Your task to perform on an android device: Go to location settings Image 0: 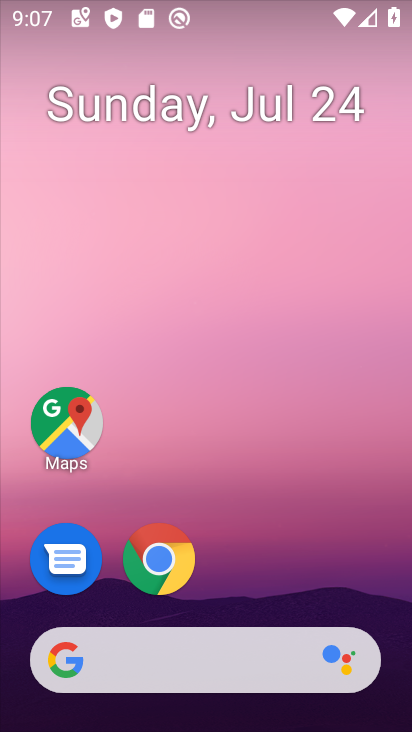
Step 0: drag from (285, 579) to (349, 58)
Your task to perform on an android device: Go to location settings Image 1: 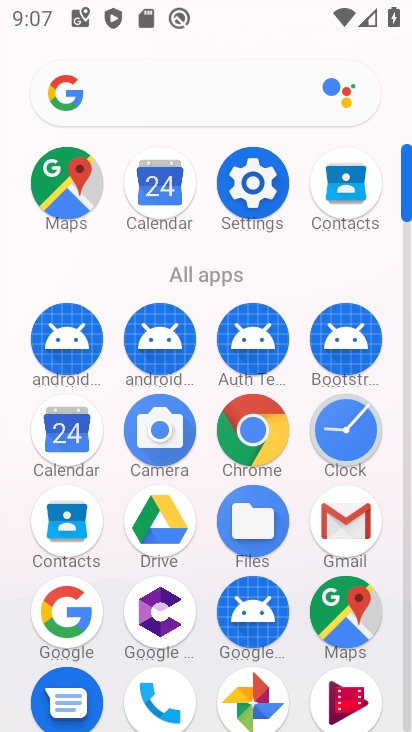
Step 1: click (252, 171)
Your task to perform on an android device: Go to location settings Image 2: 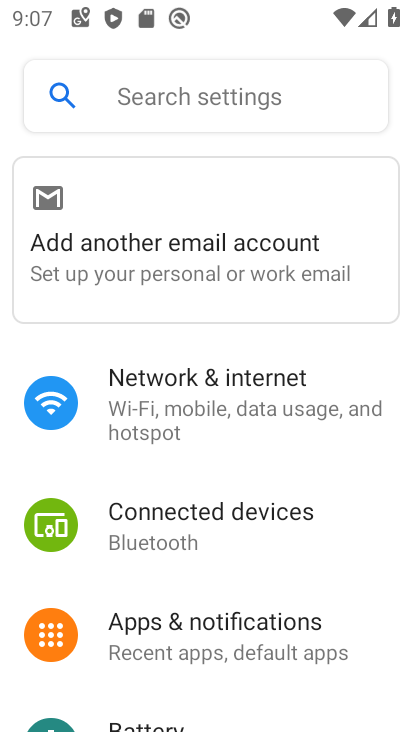
Step 2: drag from (169, 652) to (274, 30)
Your task to perform on an android device: Go to location settings Image 3: 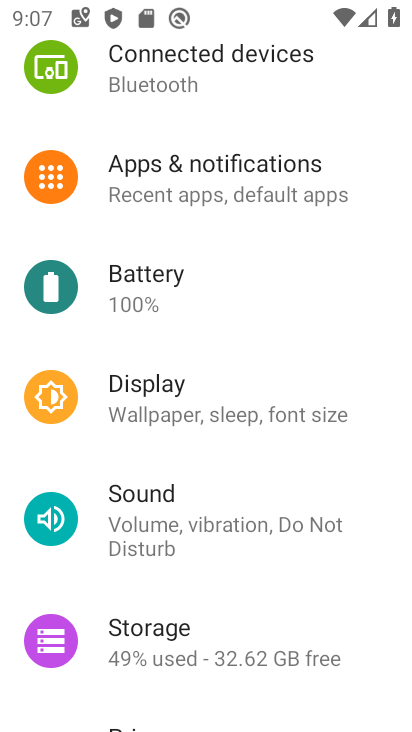
Step 3: drag from (146, 641) to (258, 79)
Your task to perform on an android device: Go to location settings Image 4: 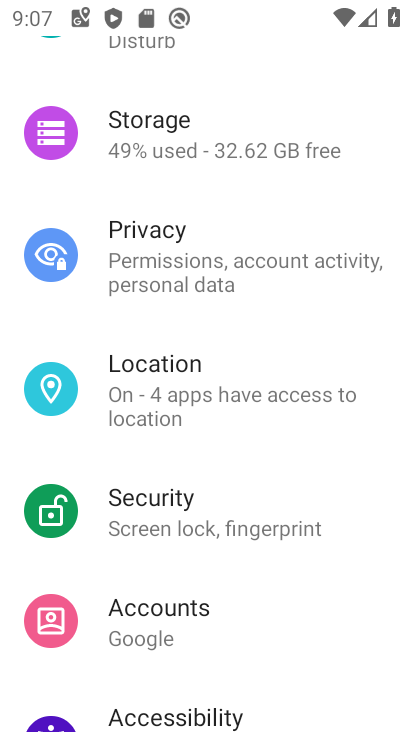
Step 4: click (162, 377)
Your task to perform on an android device: Go to location settings Image 5: 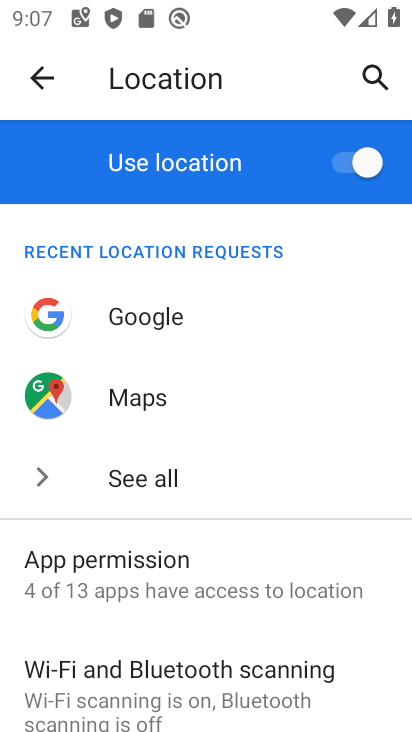
Step 5: task complete